Your task to perform on an android device: open app "Google Docs" Image 0: 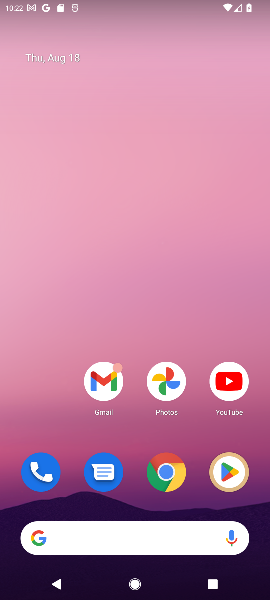
Step 0: click (233, 468)
Your task to perform on an android device: open app "Google Docs" Image 1: 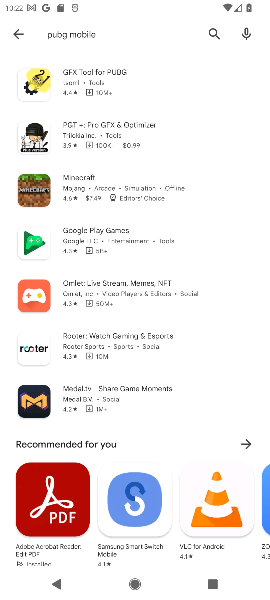
Step 1: click (211, 27)
Your task to perform on an android device: open app "Google Docs" Image 2: 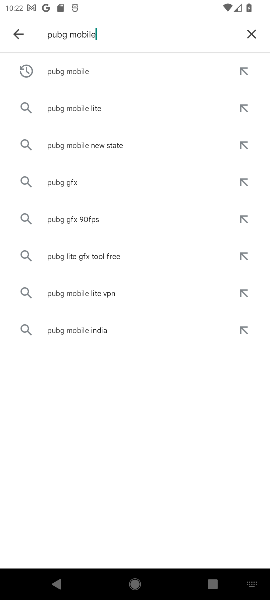
Step 2: click (252, 31)
Your task to perform on an android device: open app "Google Docs" Image 3: 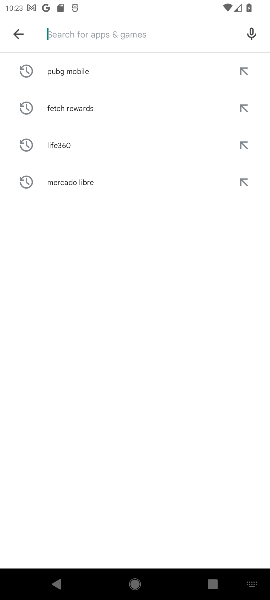
Step 3: type "google docs"
Your task to perform on an android device: open app "Google Docs" Image 4: 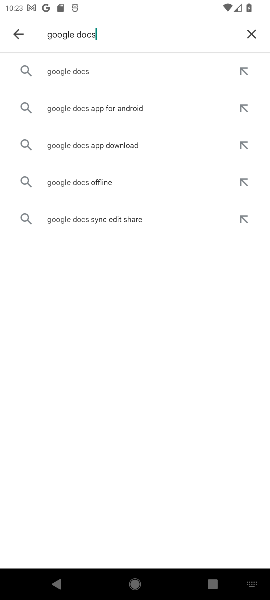
Step 4: click (126, 77)
Your task to perform on an android device: open app "Google Docs" Image 5: 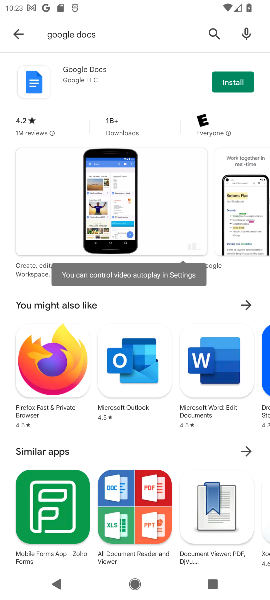
Step 5: task complete